Your task to perform on an android device: Clear the cart on newegg. Add usb-c to usb-a to the cart on newegg, then select checkout. Image 0: 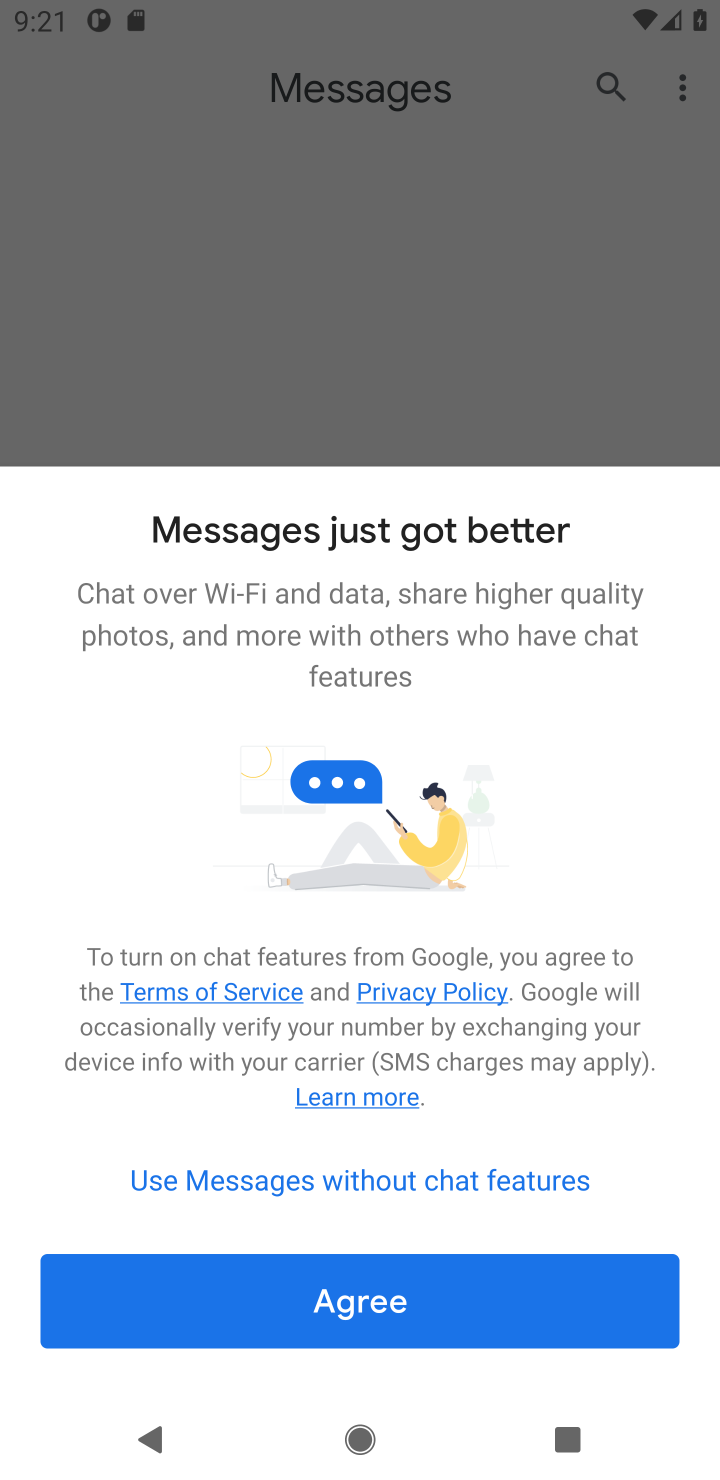
Step 0: press home button
Your task to perform on an android device: Clear the cart on newegg. Add usb-c to usb-a to the cart on newegg, then select checkout. Image 1: 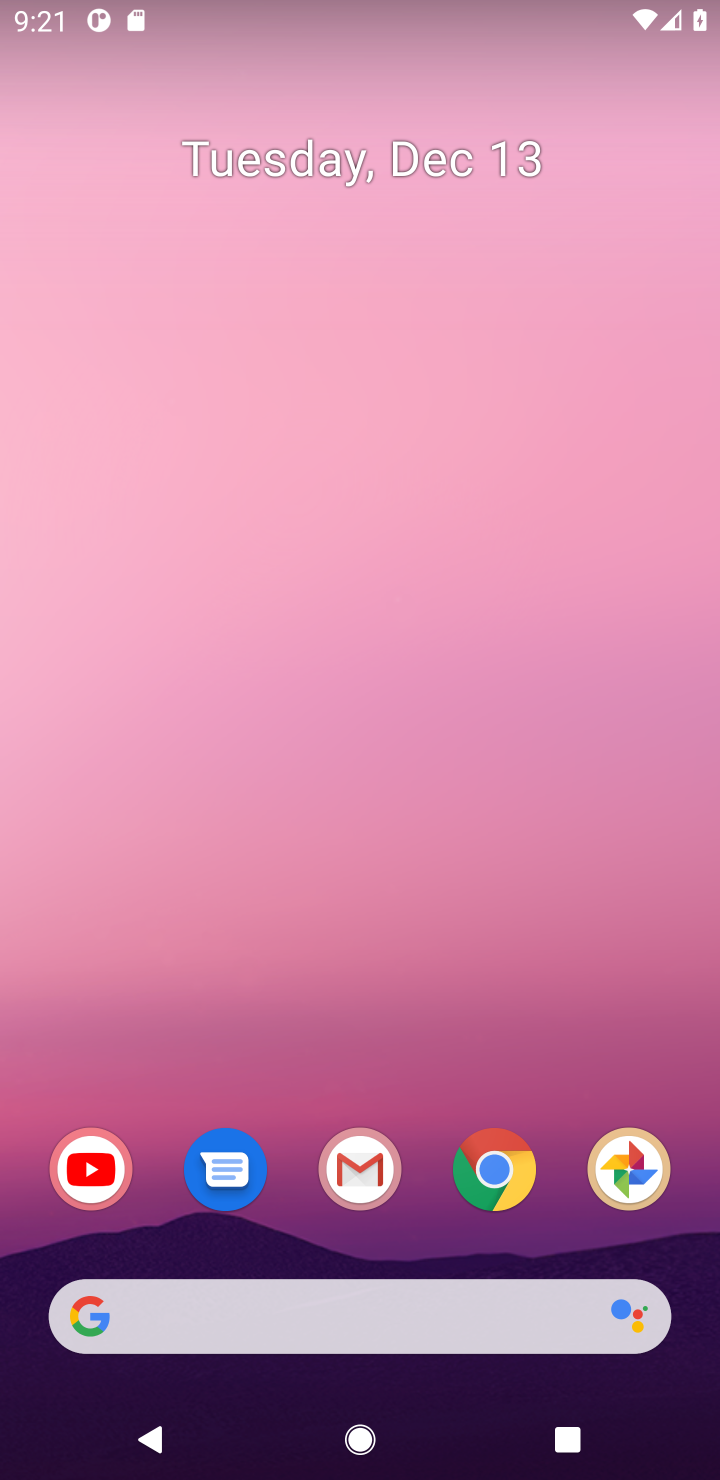
Step 1: click (461, 1184)
Your task to perform on an android device: Clear the cart on newegg. Add usb-c to usb-a to the cart on newegg, then select checkout. Image 2: 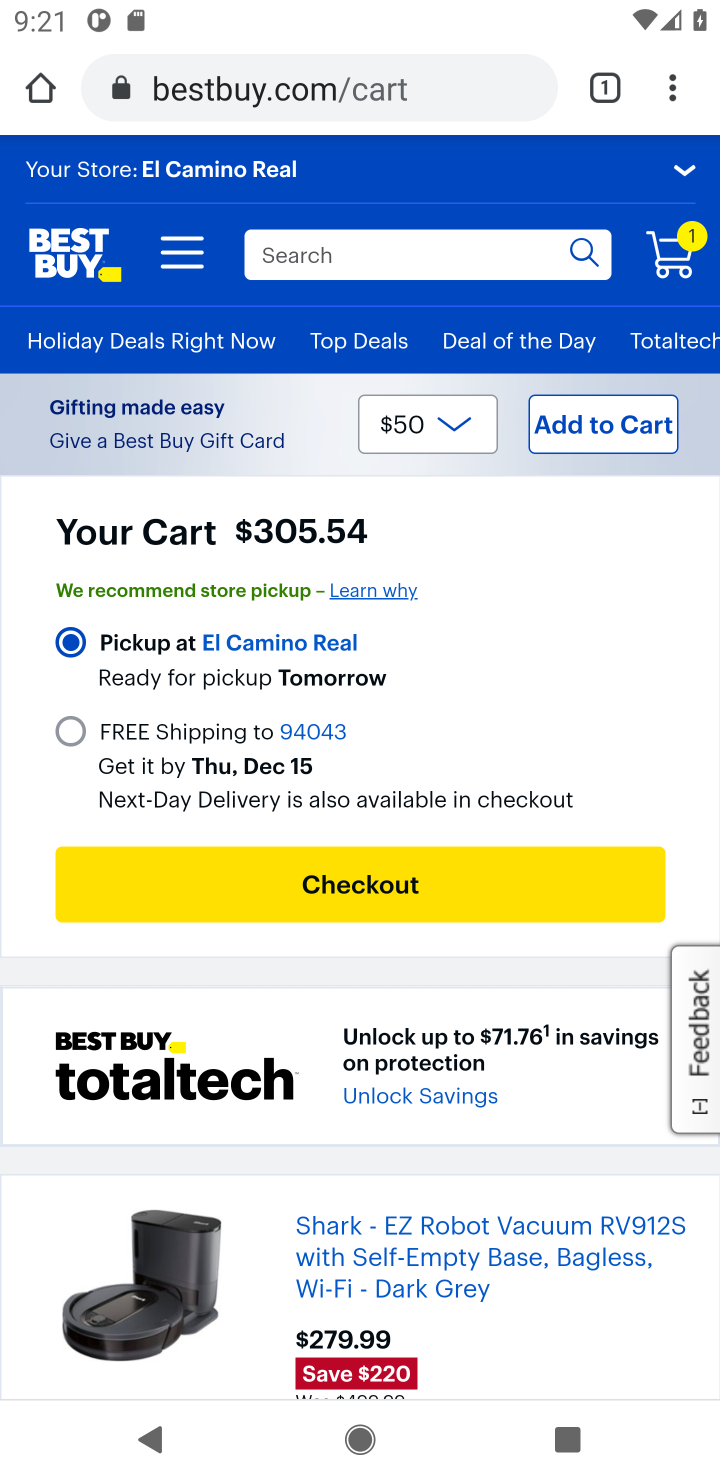
Step 2: click (322, 95)
Your task to perform on an android device: Clear the cart on newegg. Add usb-c to usb-a to the cart on newegg, then select checkout. Image 3: 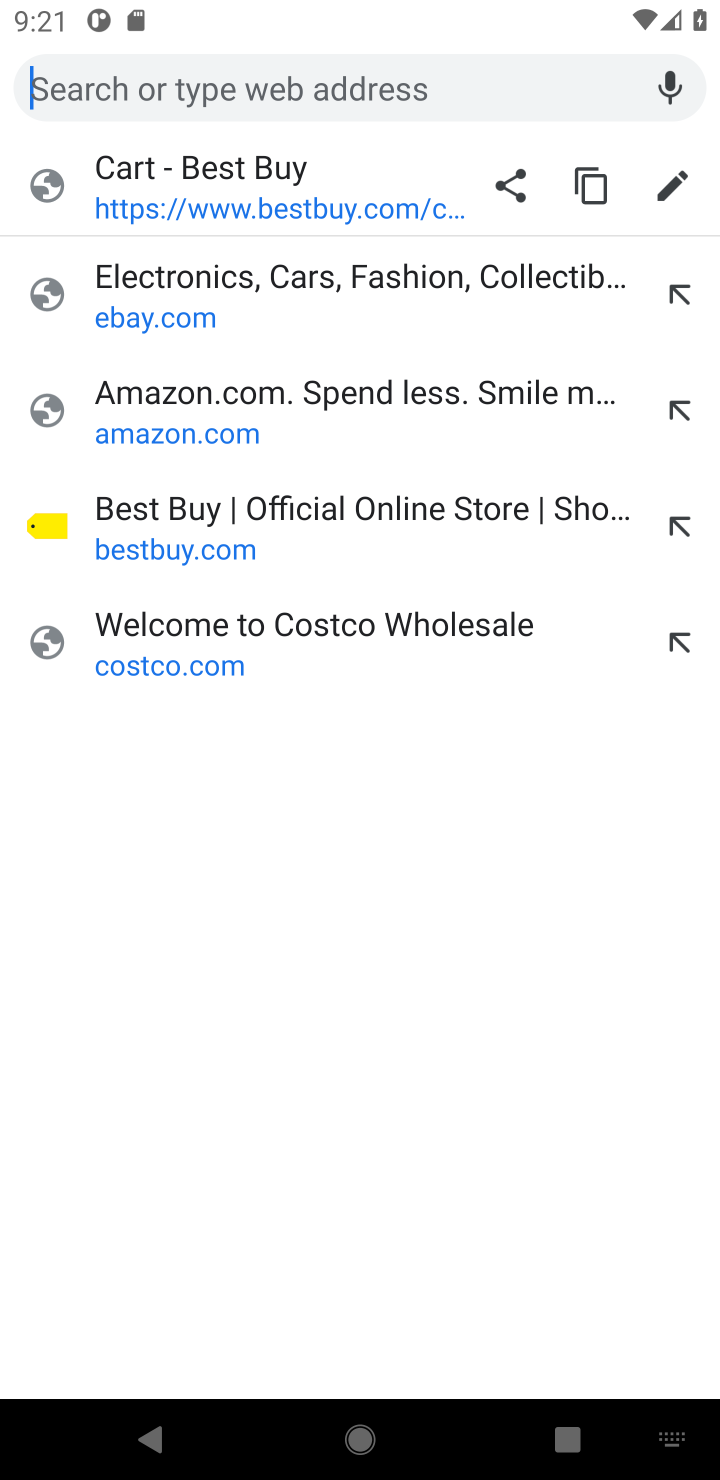
Step 3: type "newegg"
Your task to perform on an android device: Clear the cart on newegg. Add usb-c to usb-a to the cart on newegg, then select checkout. Image 4: 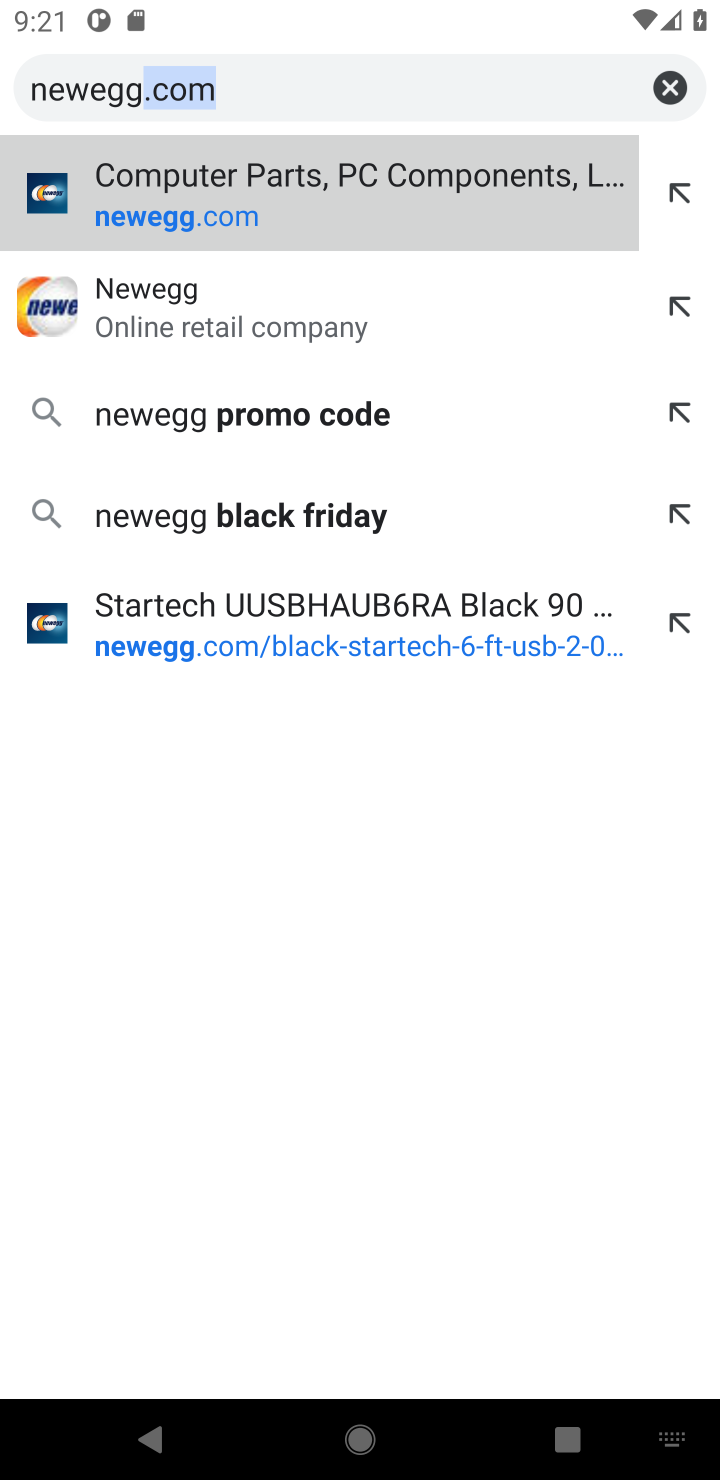
Step 4: click (226, 169)
Your task to perform on an android device: Clear the cart on newegg. Add usb-c to usb-a to the cart on newegg, then select checkout. Image 5: 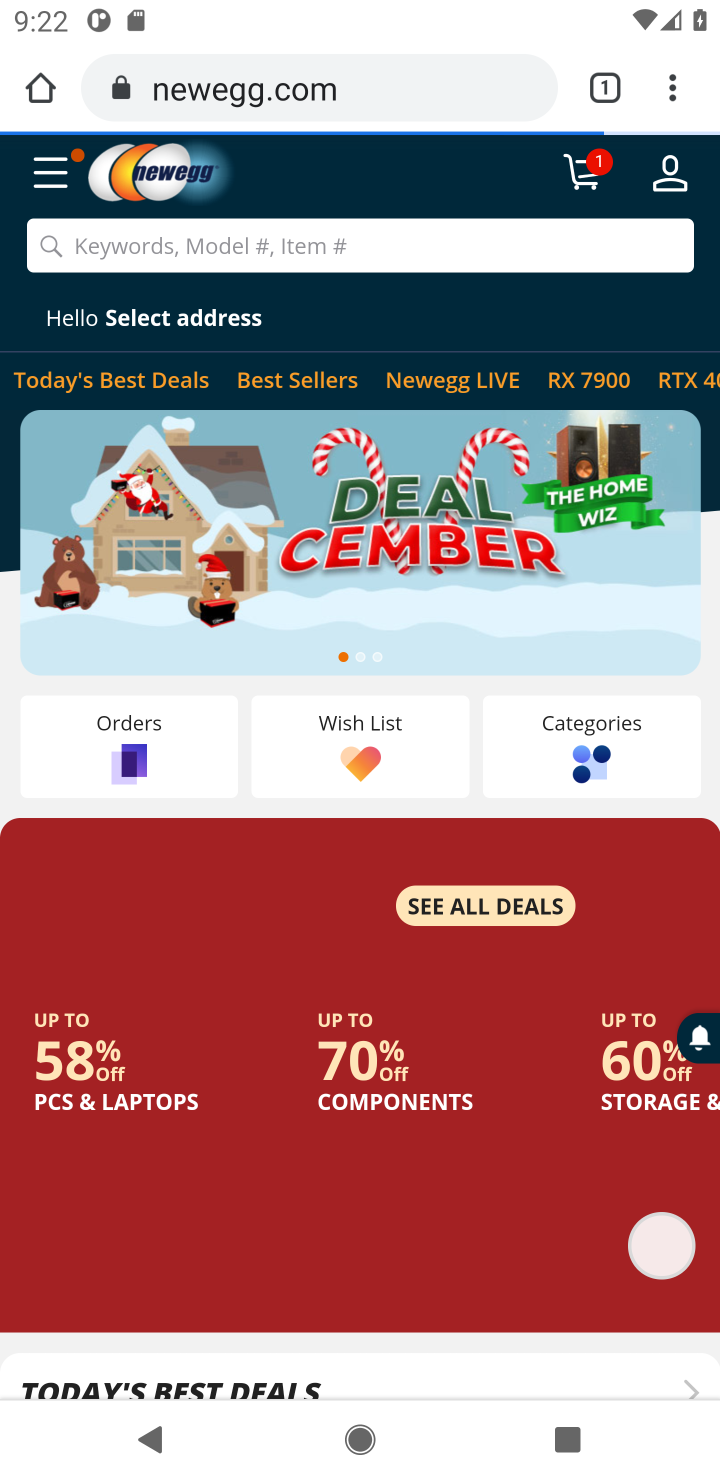
Step 5: click (198, 258)
Your task to perform on an android device: Clear the cart on newegg. Add usb-c to usb-a to the cart on newegg, then select checkout. Image 6: 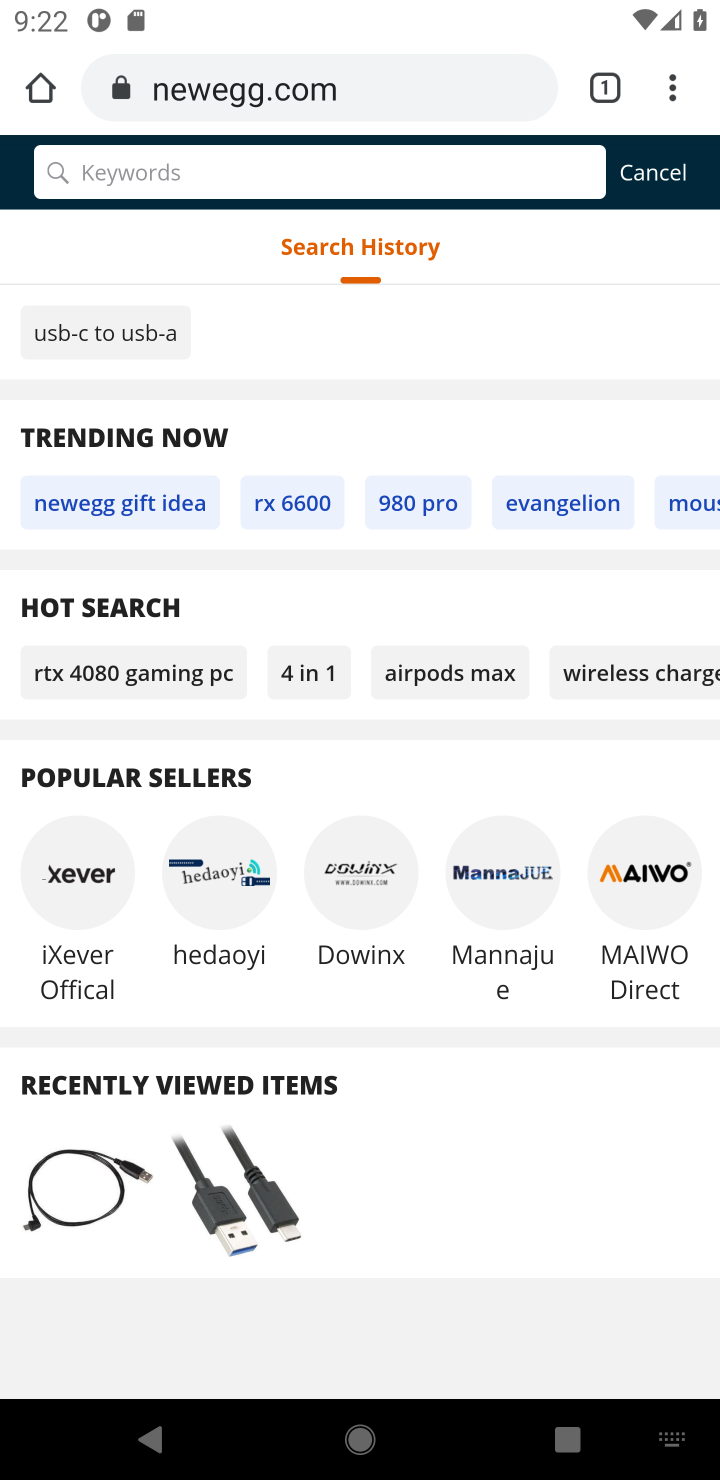
Step 6: type "usb-c to usb-a"
Your task to perform on an android device: Clear the cart on newegg. Add usb-c to usb-a to the cart on newegg, then select checkout. Image 7: 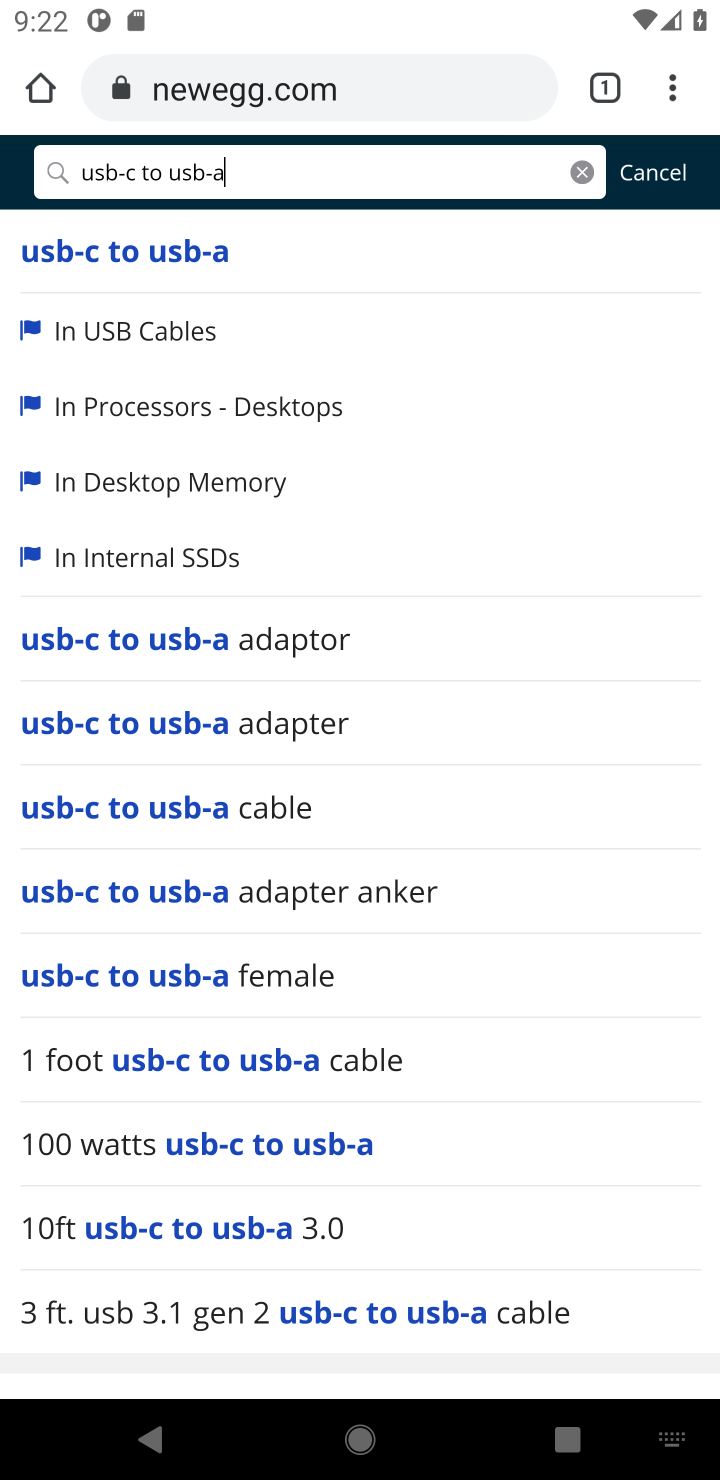
Step 7: click (228, 244)
Your task to perform on an android device: Clear the cart on newegg. Add usb-c to usb-a to the cart on newegg, then select checkout. Image 8: 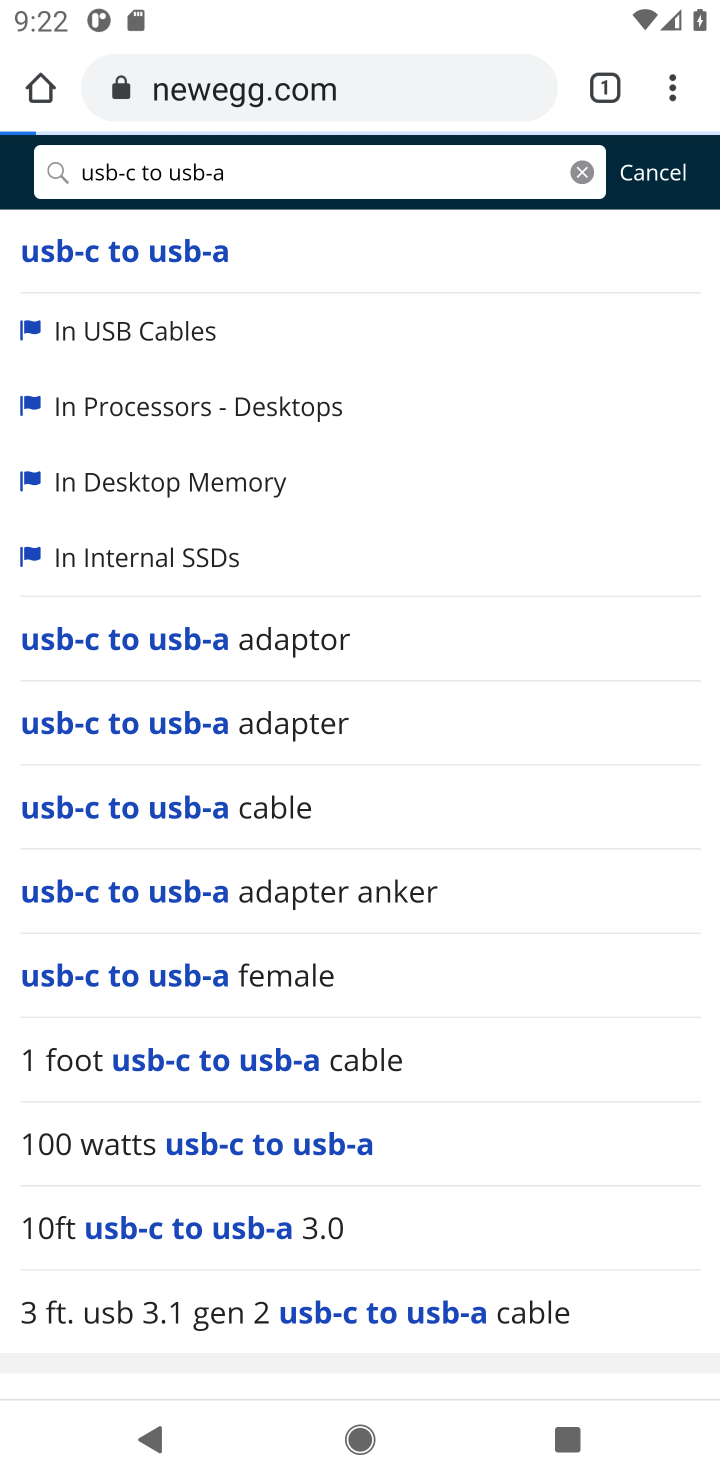
Step 8: click (69, 250)
Your task to perform on an android device: Clear the cart on newegg. Add usb-c to usb-a to the cart on newegg, then select checkout. Image 9: 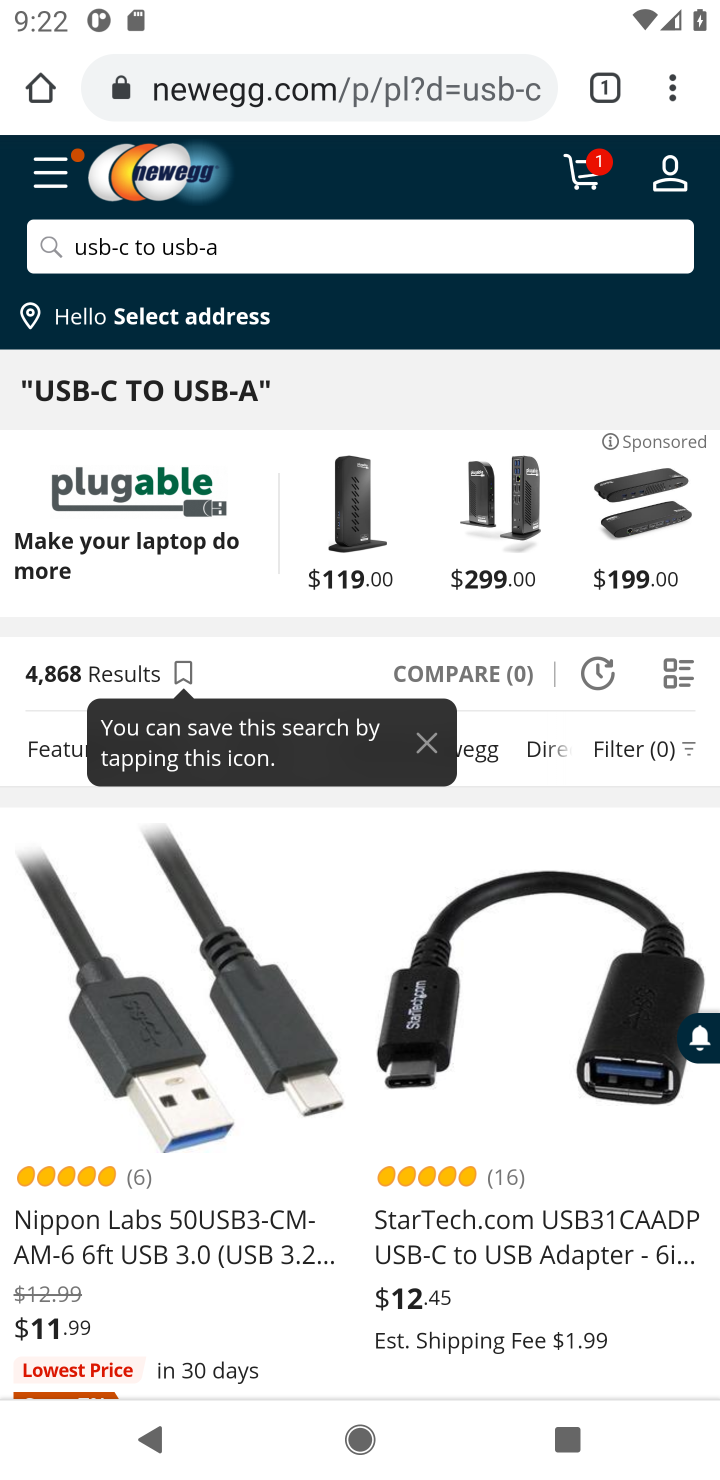
Step 9: click (256, 1112)
Your task to perform on an android device: Clear the cart on newegg. Add usb-c to usb-a to the cart on newegg, then select checkout. Image 10: 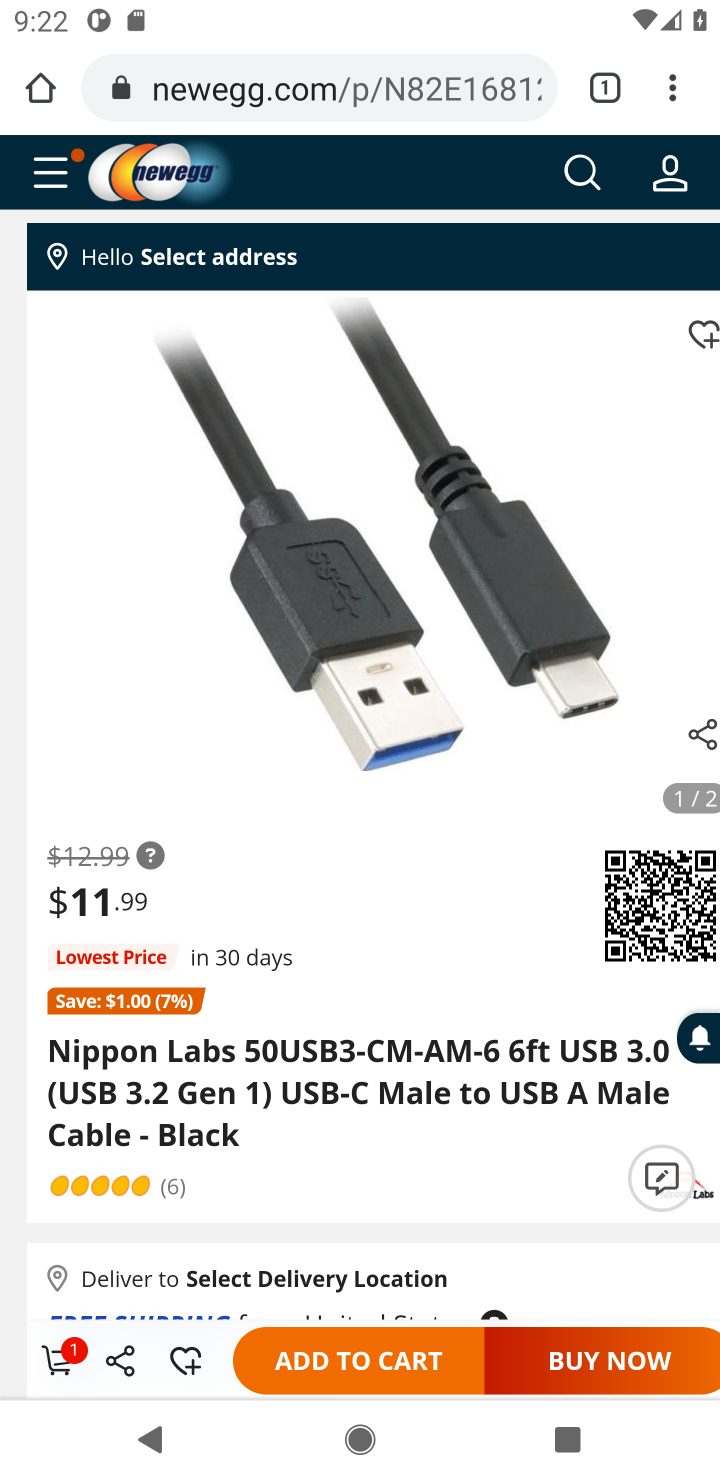
Step 10: click (347, 1364)
Your task to perform on an android device: Clear the cart on newegg. Add usb-c to usb-a to the cart on newegg, then select checkout. Image 11: 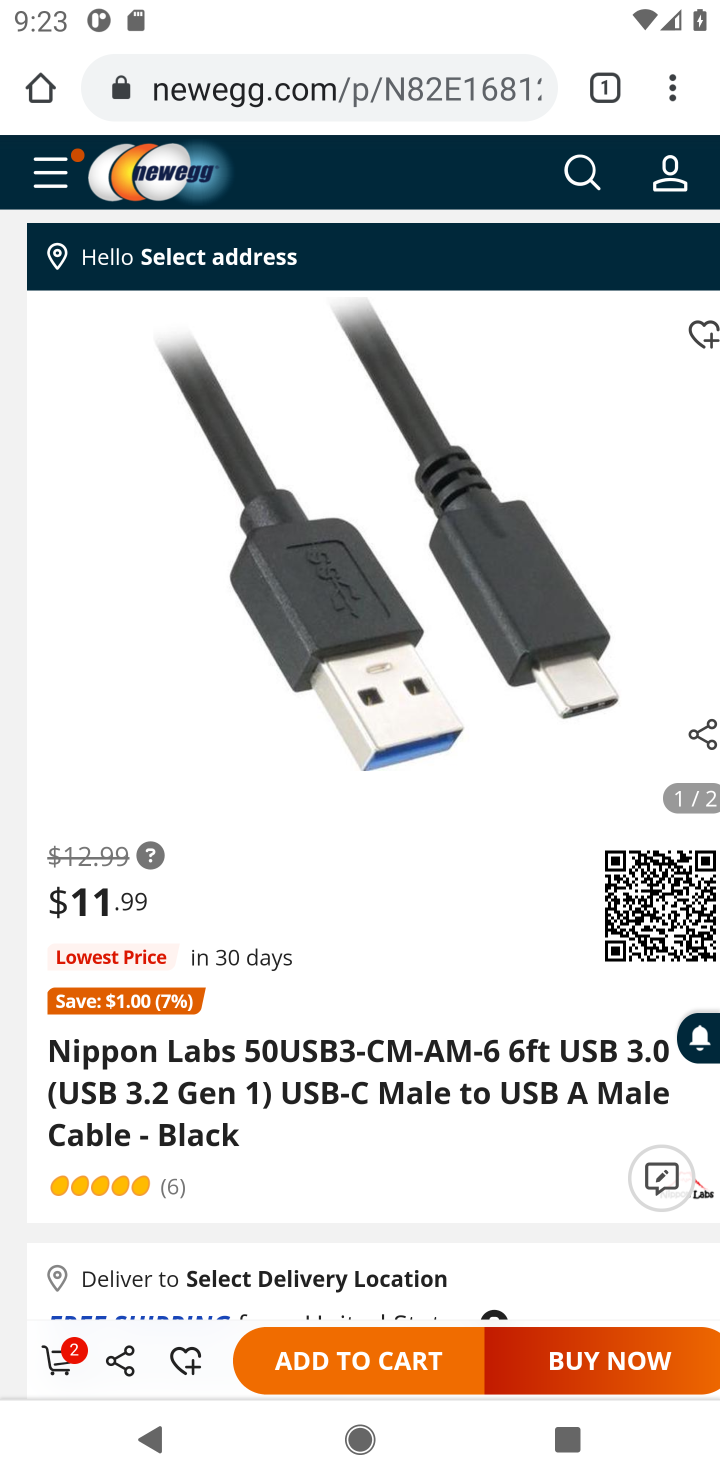
Step 11: click (347, 1364)
Your task to perform on an android device: Clear the cart on newegg. Add usb-c to usb-a to the cart on newegg, then select checkout. Image 12: 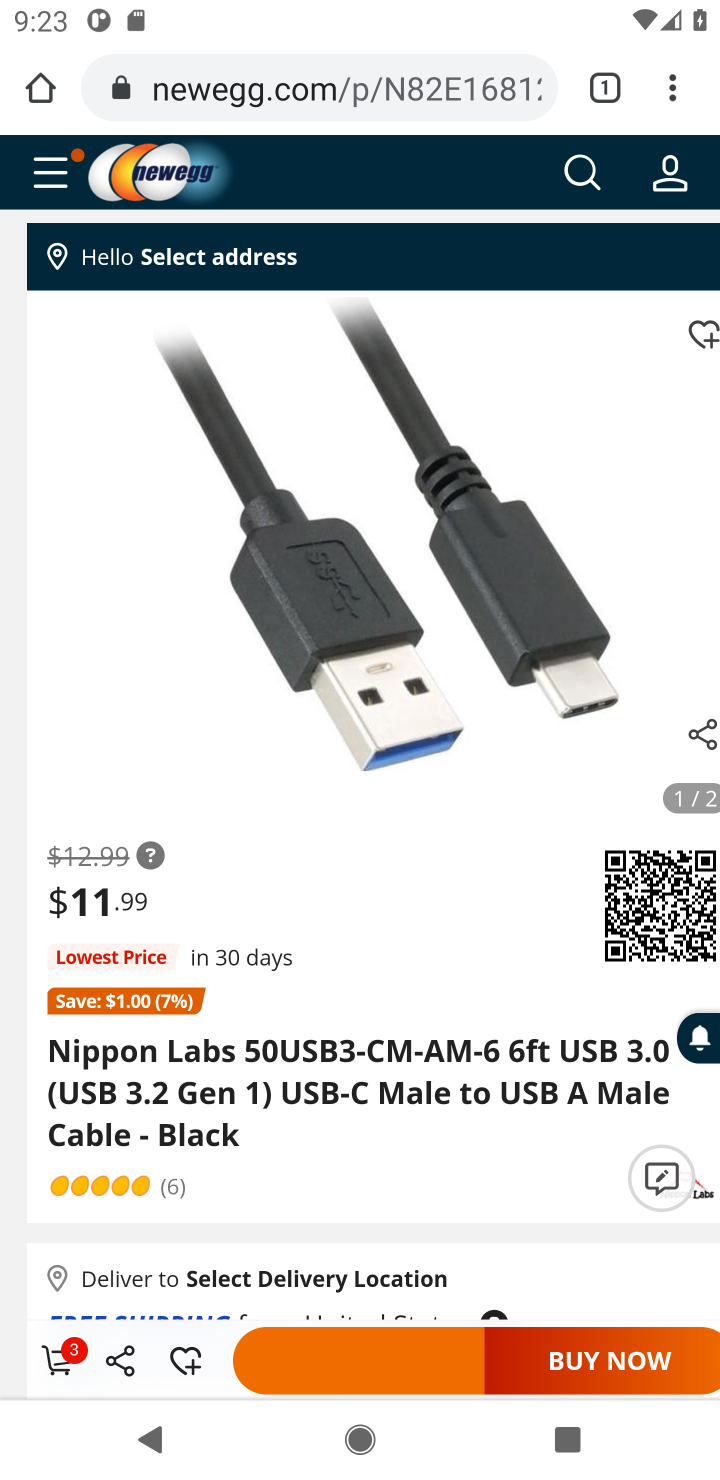
Step 12: task complete